Your task to perform on an android device: Go to wifi settings Image 0: 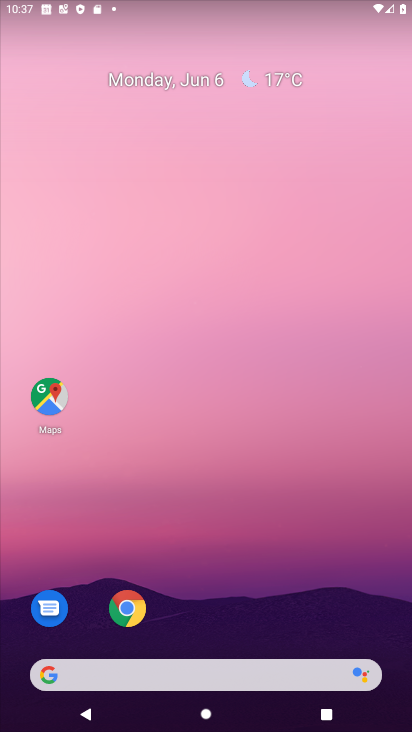
Step 0: drag from (220, 630) to (291, 120)
Your task to perform on an android device: Go to wifi settings Image 1: 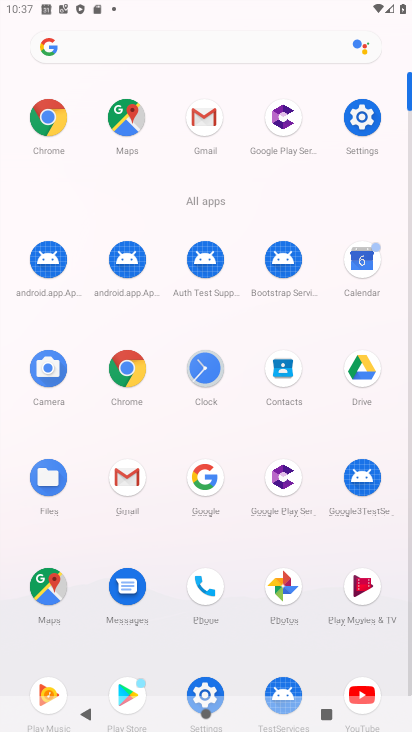
Step 1: click (359, 116)
Your task to perform on an android device: Go to wifi settings Image 2: 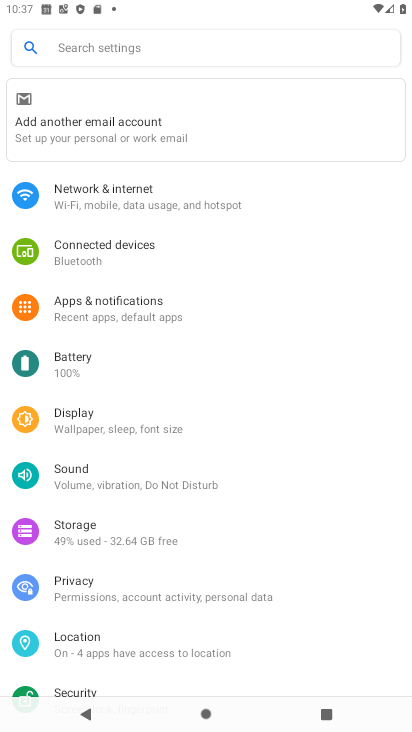
Step 2: click (142, 208)
Your task to perform on an android device: Go to wifi settings Image 3: 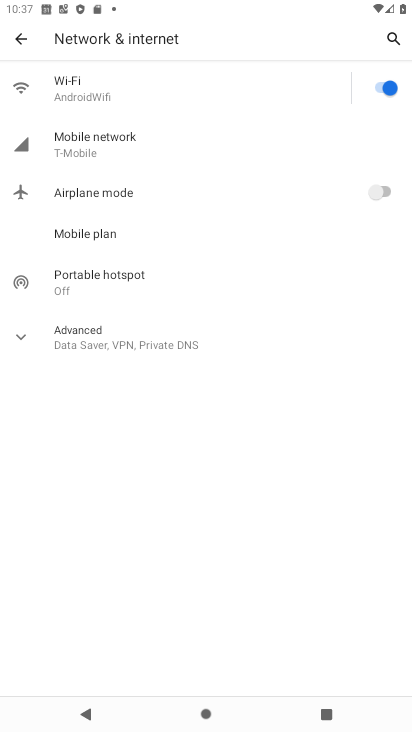
Step 3: click (49, 90)
Your task to perform on an android device: Go to wifi settings Image 4: 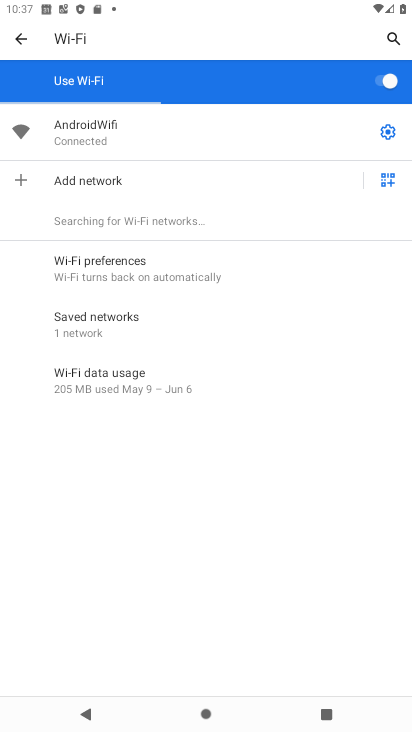
Step 4: task complete